Your task to perform on an android device: Open Wikipedia Image 0: 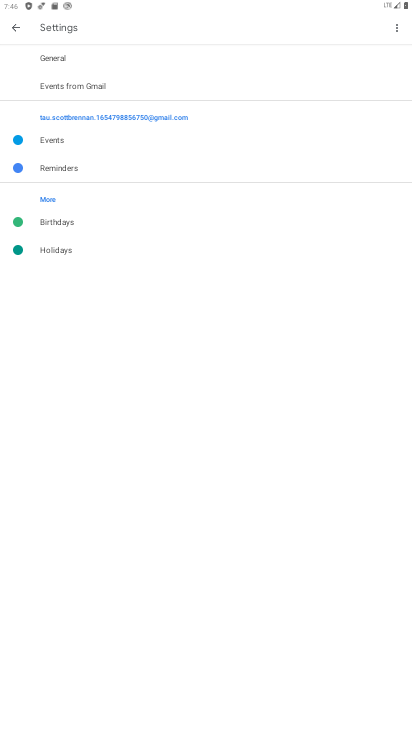
Step 0: press home button
Your task to perform on an android device: Open Wikipedia Image 1: 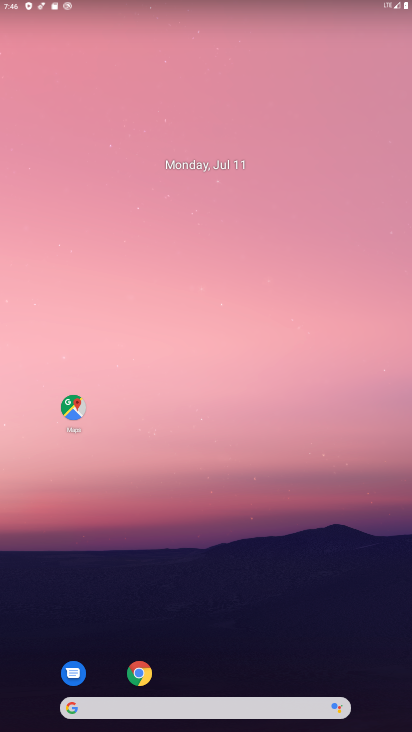
Step 1: drag from (256, 655) to (292, 146)
Your task to perform on an android device: Open Wikipedia Image 2: 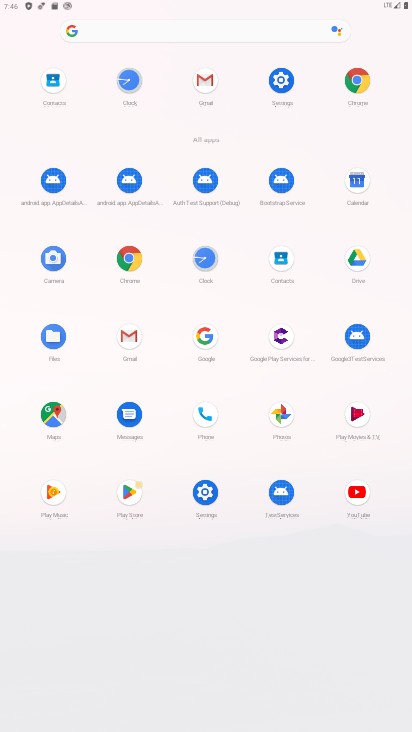
Step 2: click (127, 255)
Your task to perform on an android device: Open Wikipedia Image 3: 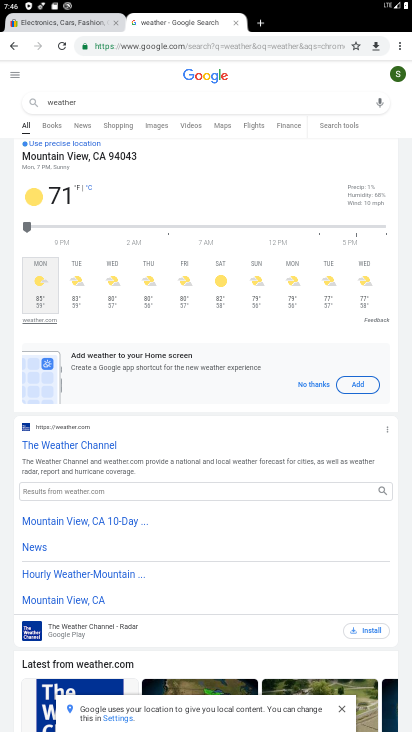
Step 3: click (128, 41)
Your task to perform on an android device: Open Wikipedia Image 4: 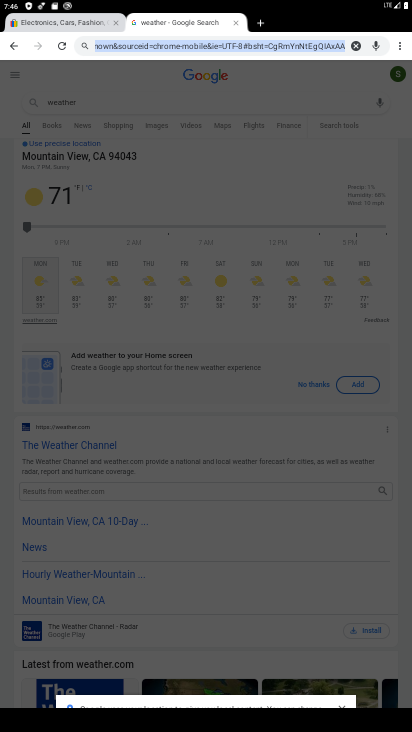
Step 4: type "wikipedia"
Your task to perform on an android device: Open Wikipedia Image 5: 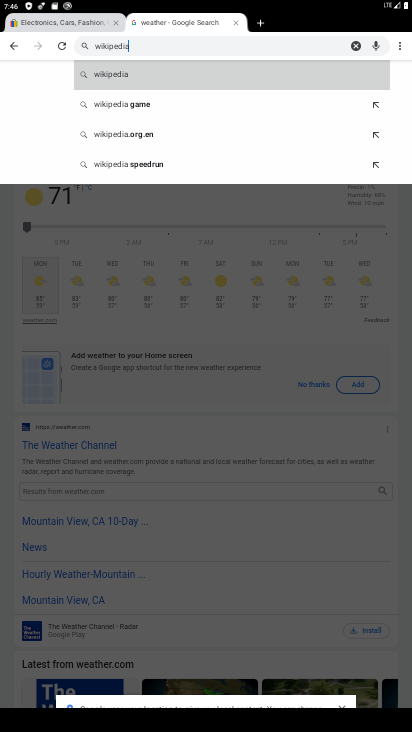
Step 5: click (129, 70)
Your task to perform on an android device: Open Wikipedia Image 6: 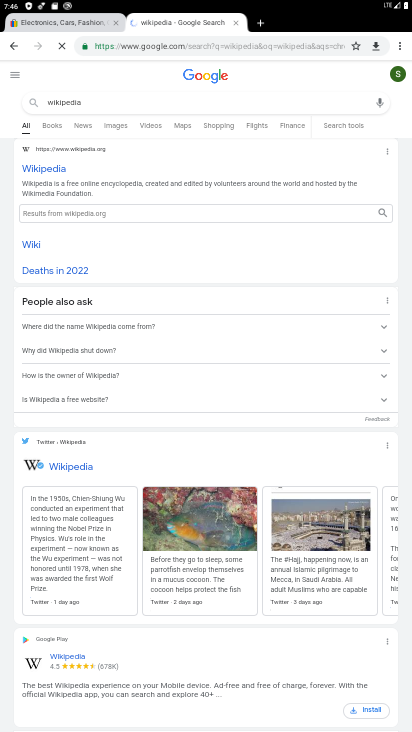
Step 6: click (57, 168)
Your task to perform on an android device: Open Wikipedia Image 7: 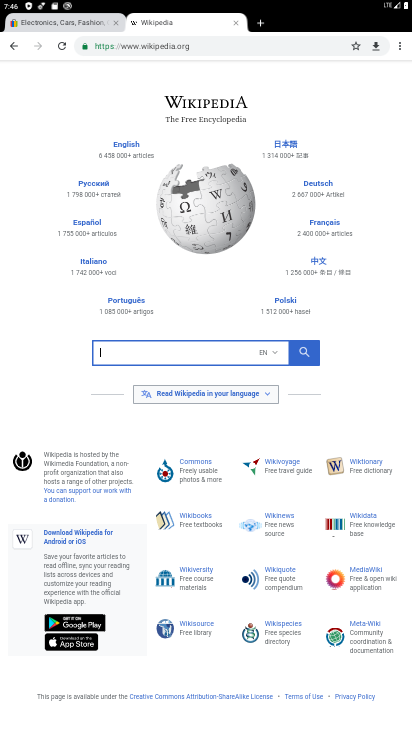
Step 7: task complete